Your task to perform on an android device: uninstall "Gmail" Image 0: 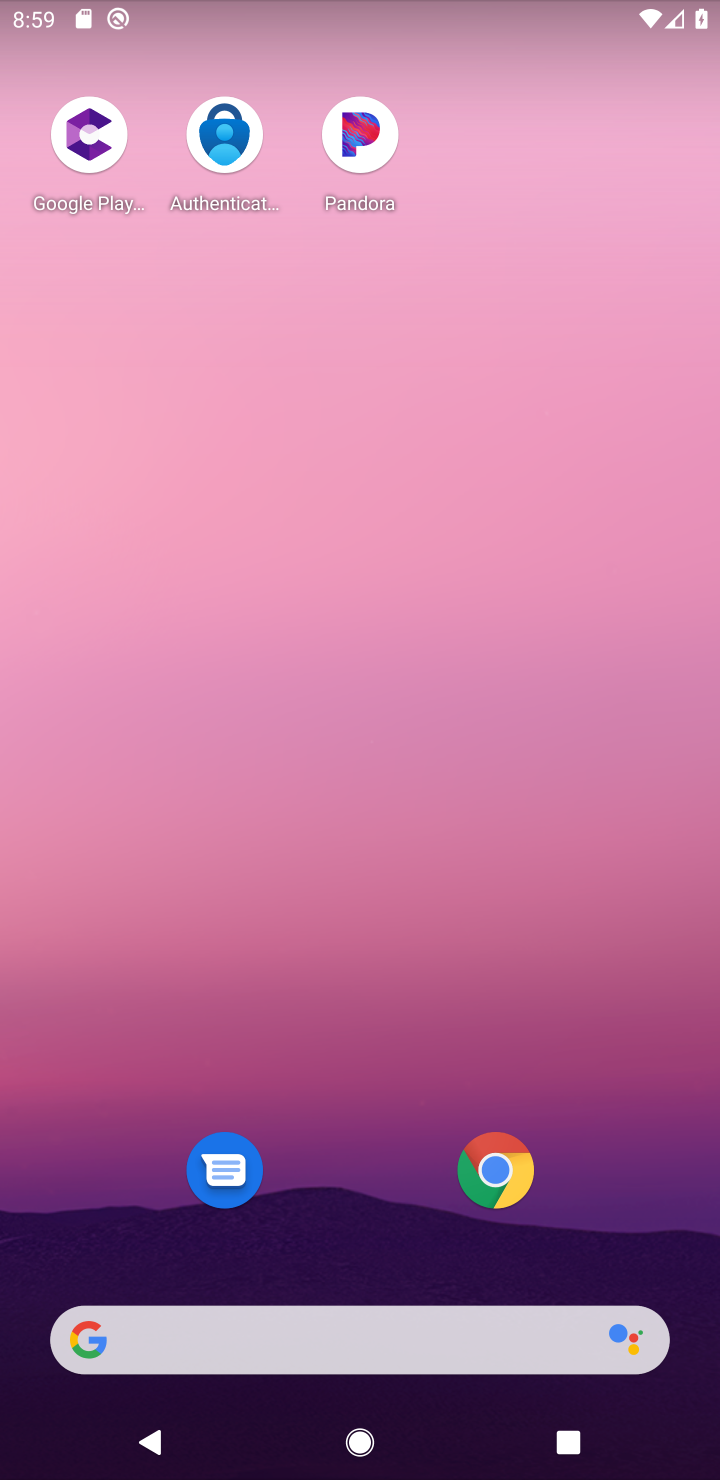
Step 0: press home button
Your task to perform on an android device: uninstall "Gmail" Image 1: 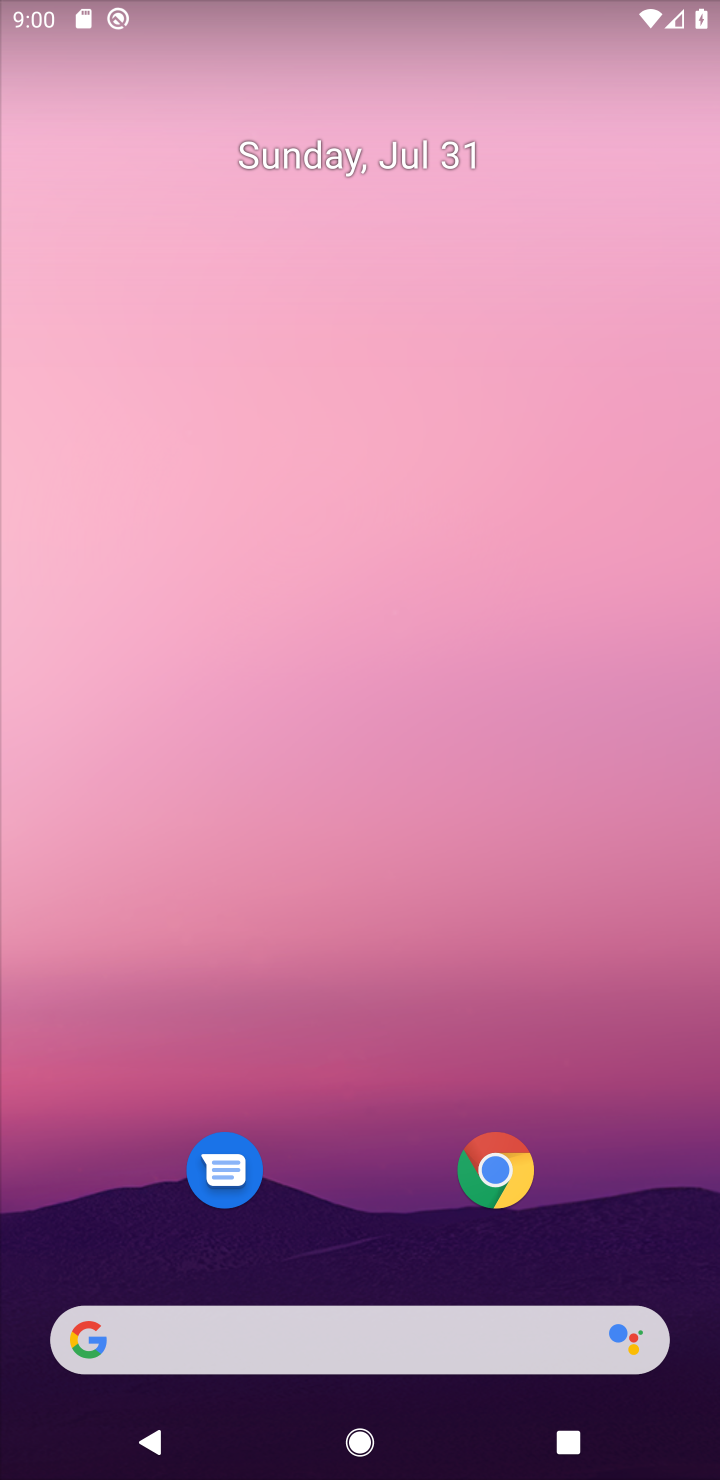
Step 1: drag from (641, 1199) to (452, 58)
Your task to perform on an android device: uninstall "Gmail" Image 2: 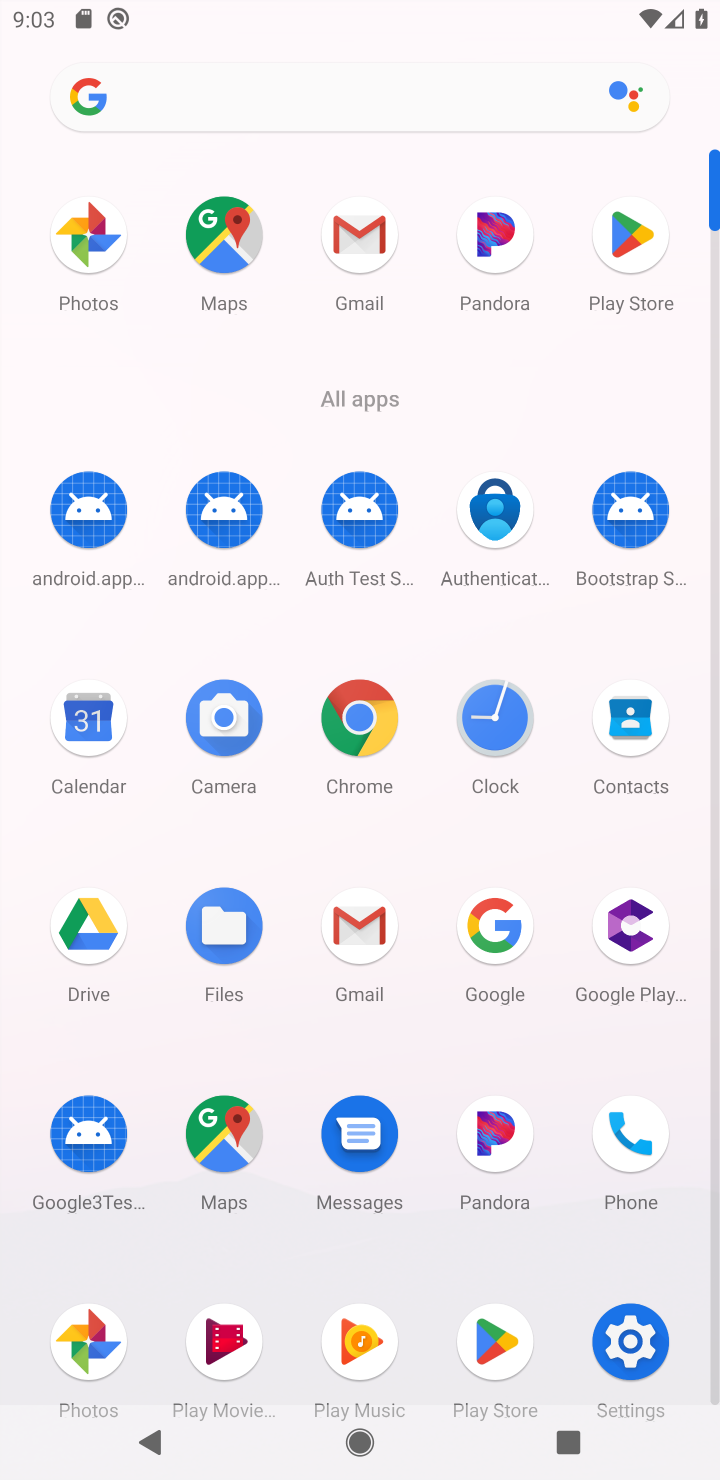
Step 2: click (641, 217)
Your task to perform on an android device: uninstall "Gmail" Image 3: 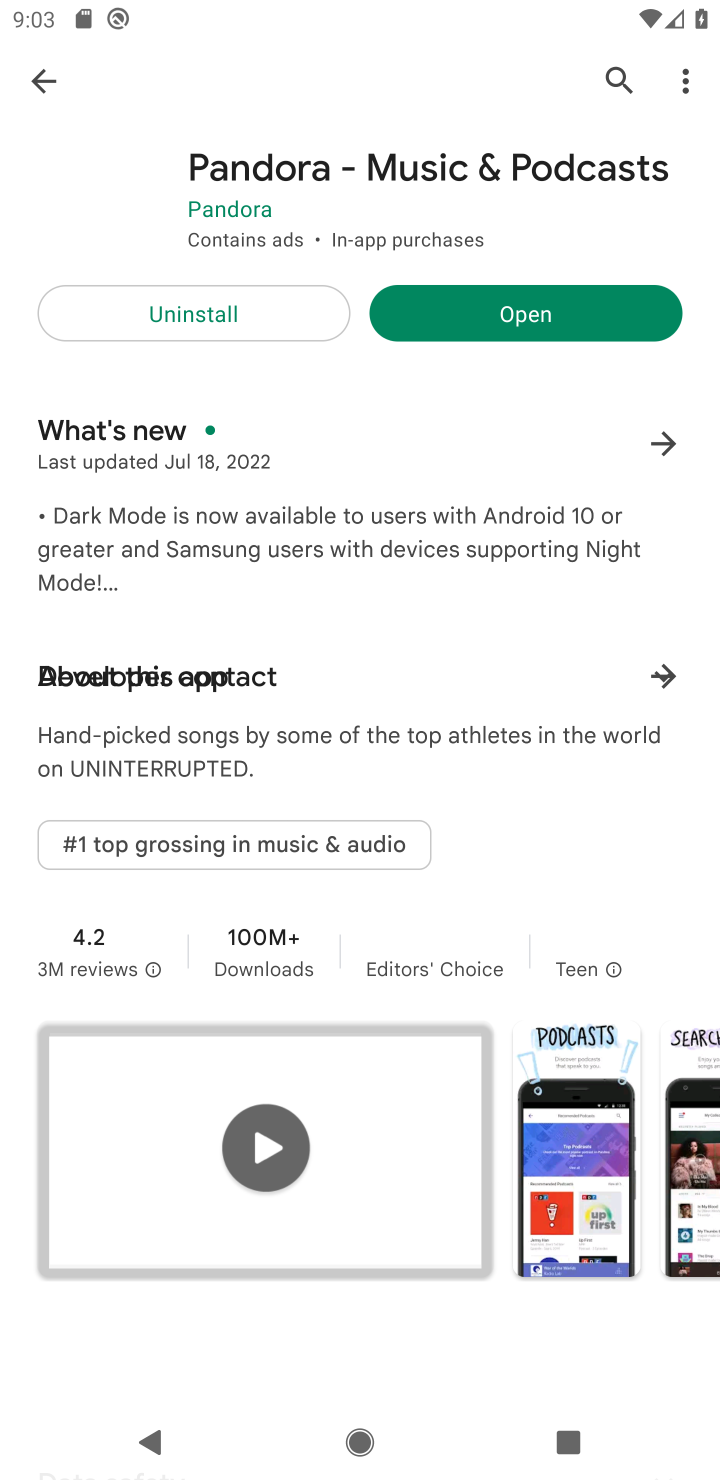
Step 3: press back button
Your task to perform on an android device: uninstall "Gmail" Image 4: 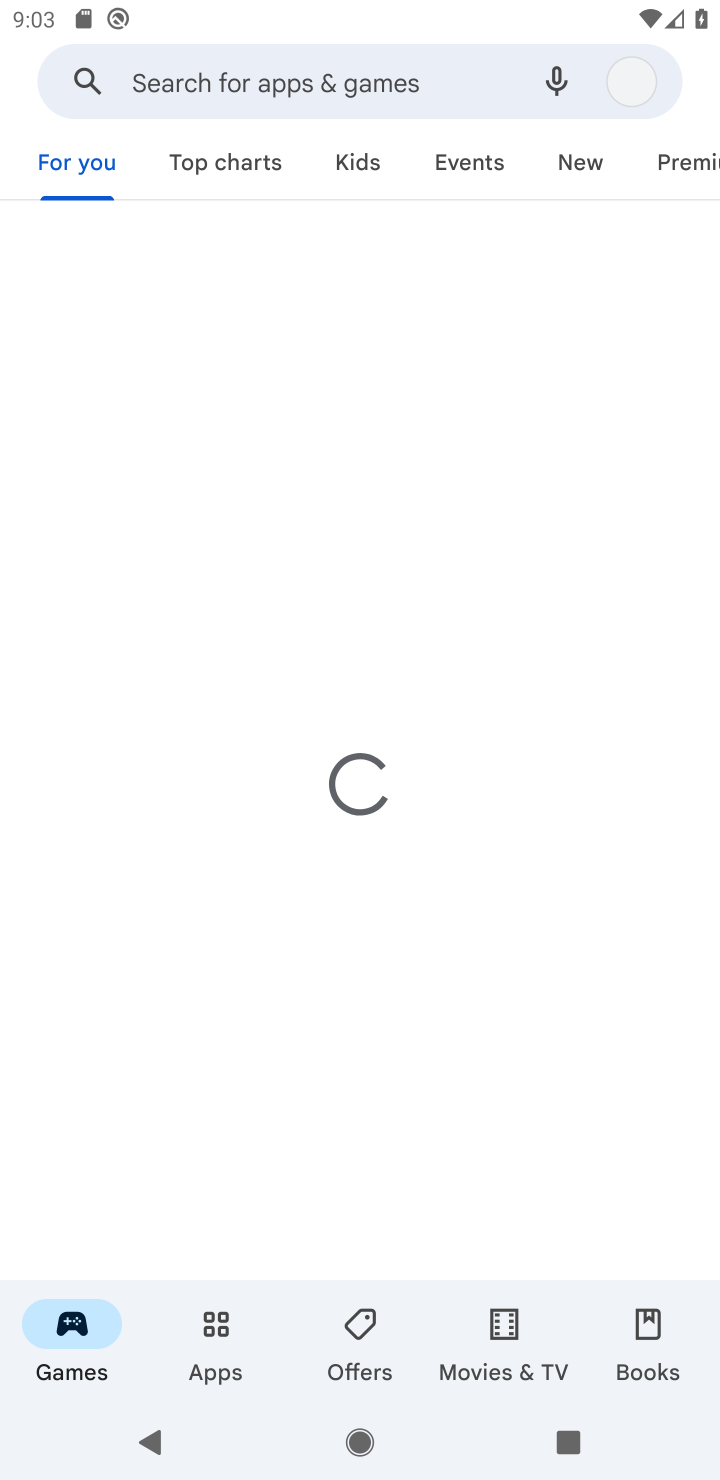
Step 4: click (224, 80)
Your task to perform on an android device: uninstall "Gmail" Image 5: 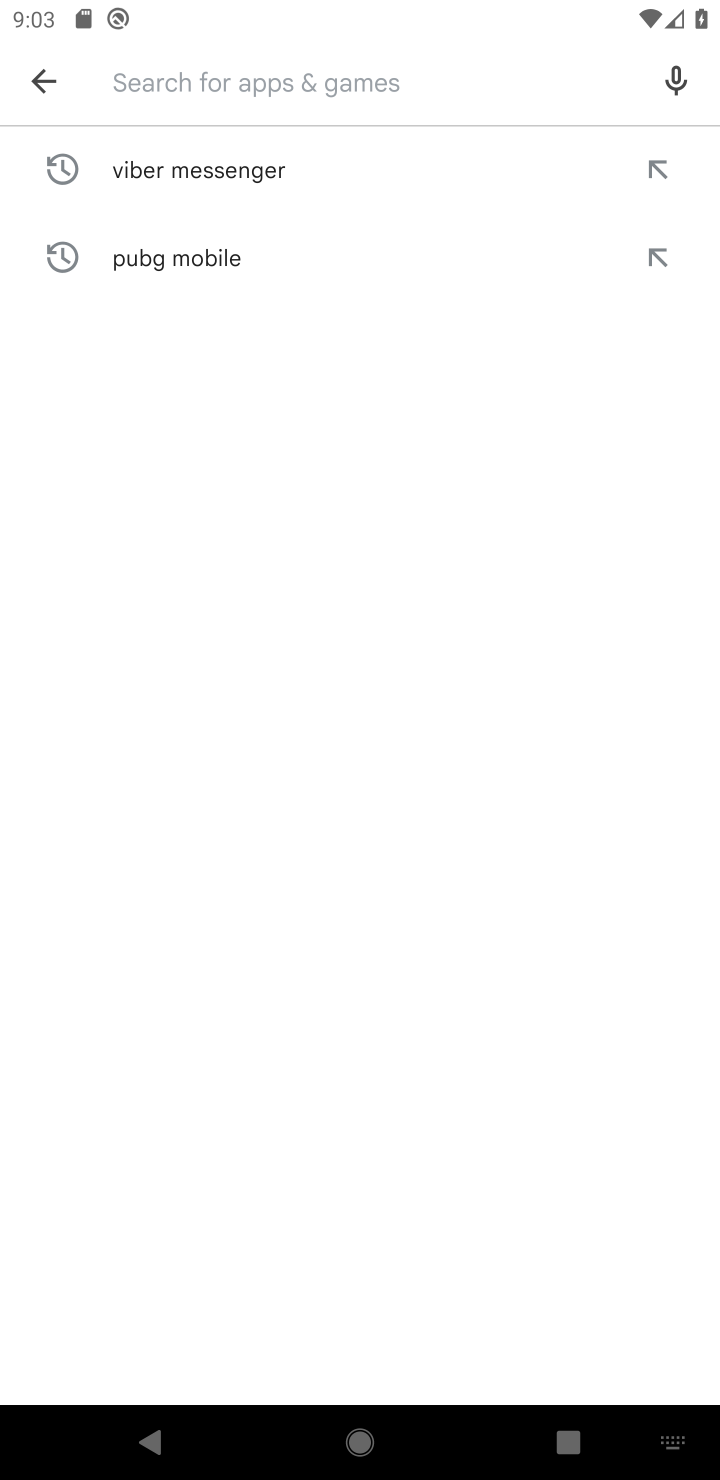
Step 5: type "Gmail"
Your task to perform on an android device: uninstall "Gmail" Image 6: 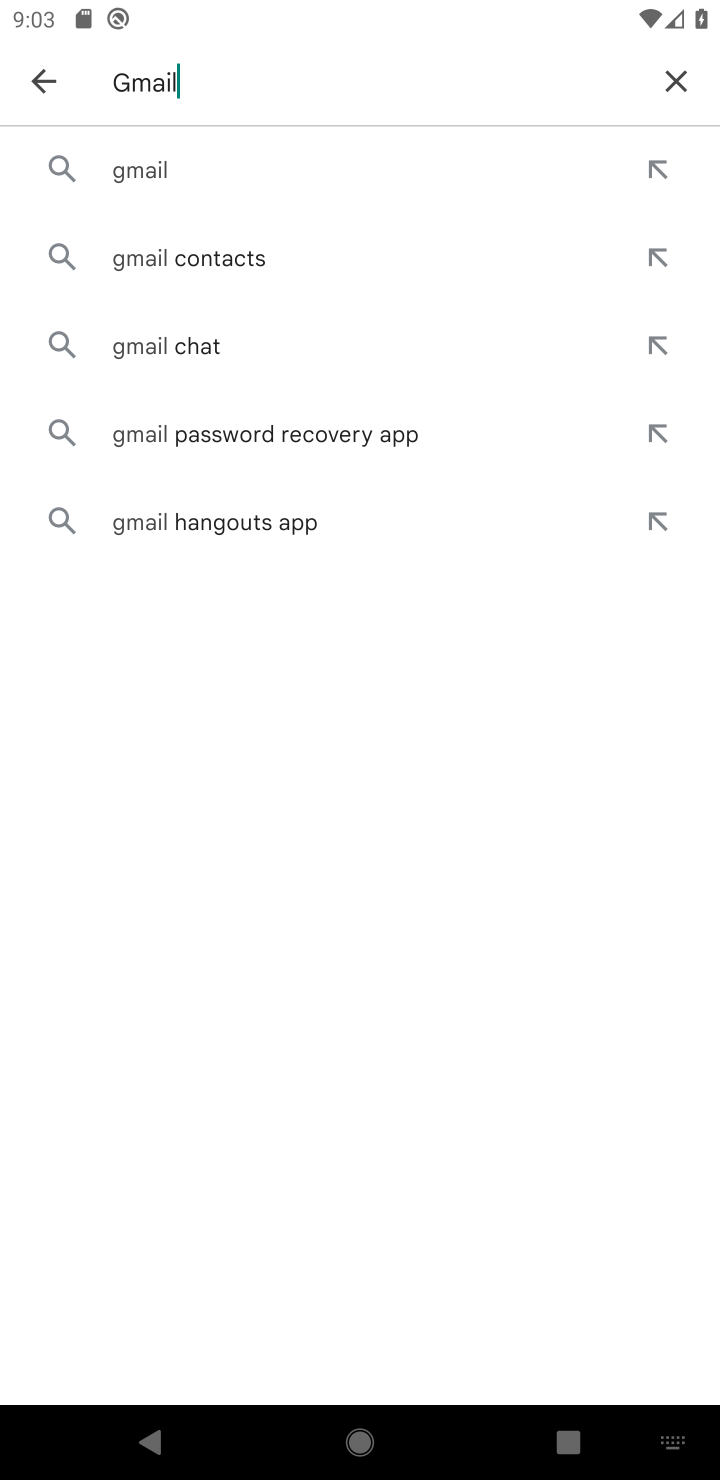
Step 6: click (238, 174)
Your task to perform on an android device: uninstall "Gmail" Image 7: 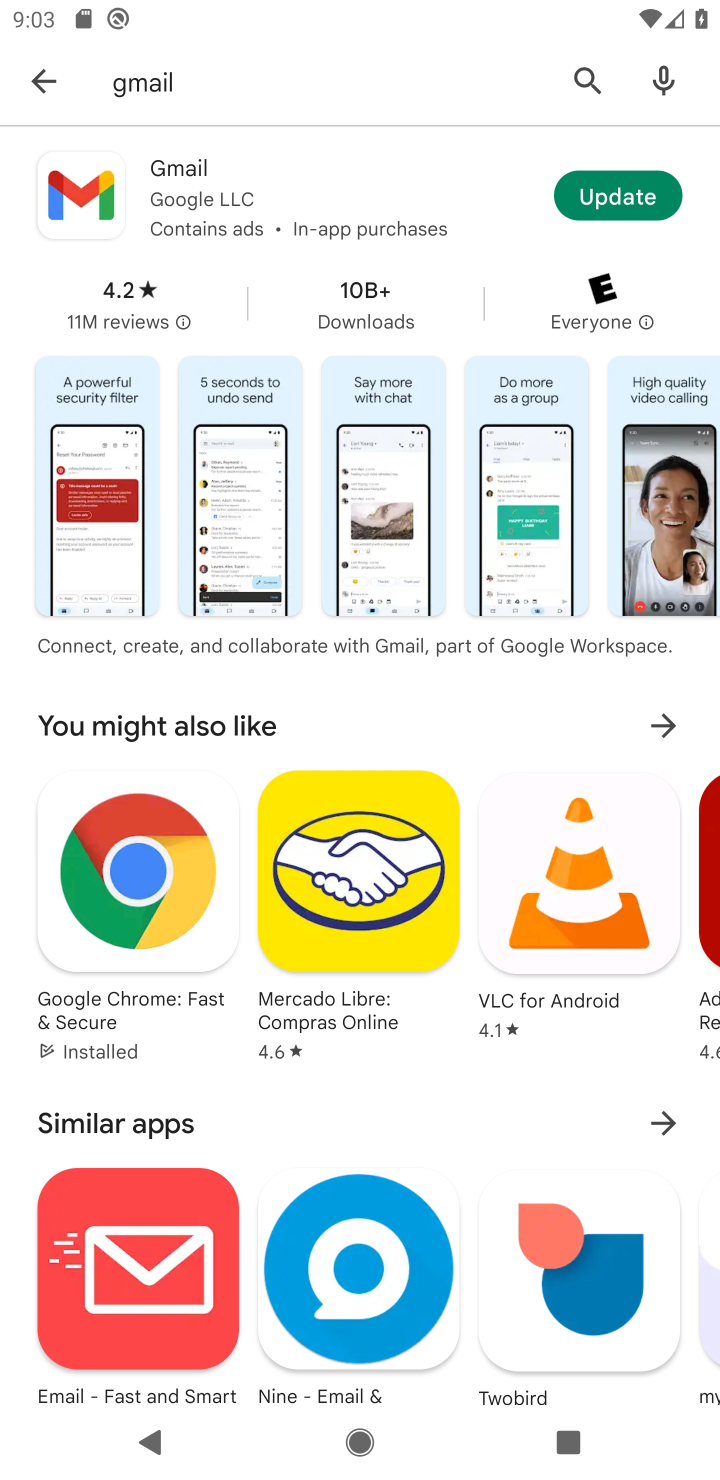
Step 7: task complete